Your task to perform on an android device: Open the phone app and click the voicemail tab. Image 0: 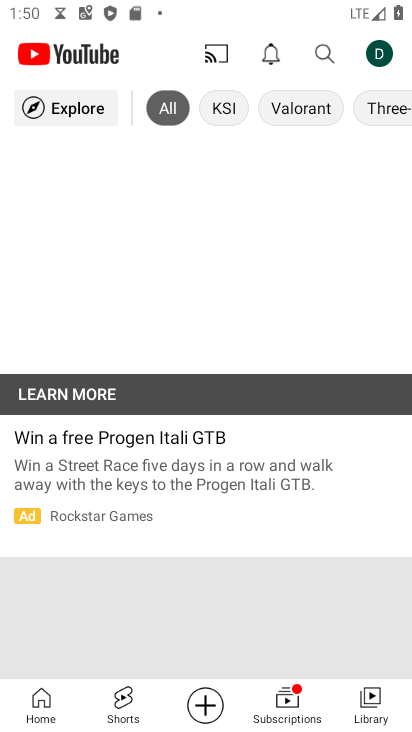
Step 0: click (197, 137)
Your task to perform on an android device: Open the phone app and click the voicemail tab. Image 1: 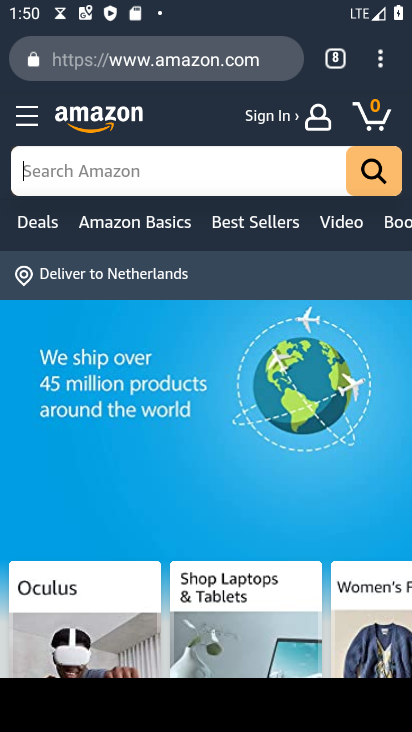
Step 1: press home button
Your task to perform on an android device: Open the phone app and click the voicemail tab. Image 2: 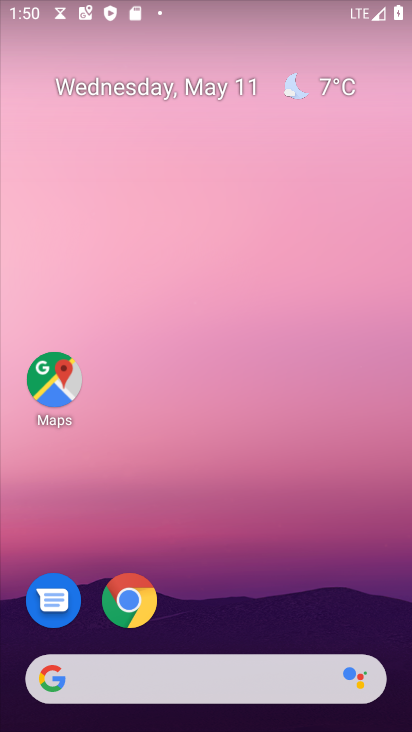
Step 2: drag from (232, 583) to (206, 75)
Your task to perform on an android device: Open the phone app and click the voicemail tab. Image 3: 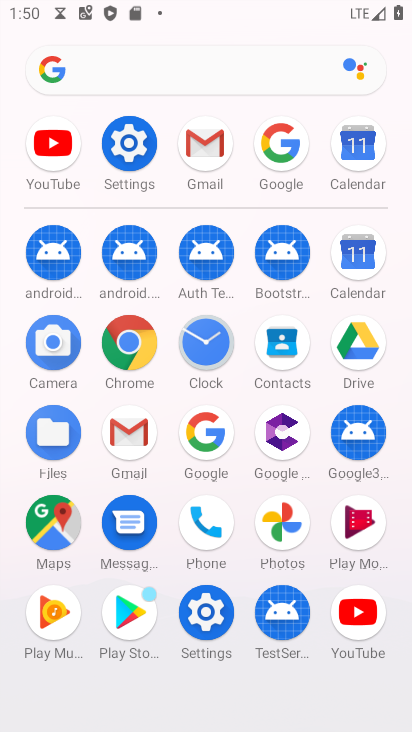
Step 3: click (205, 510)
Your task to perform on an android device: Open the phone app and click the voicemail tab. Image 4: 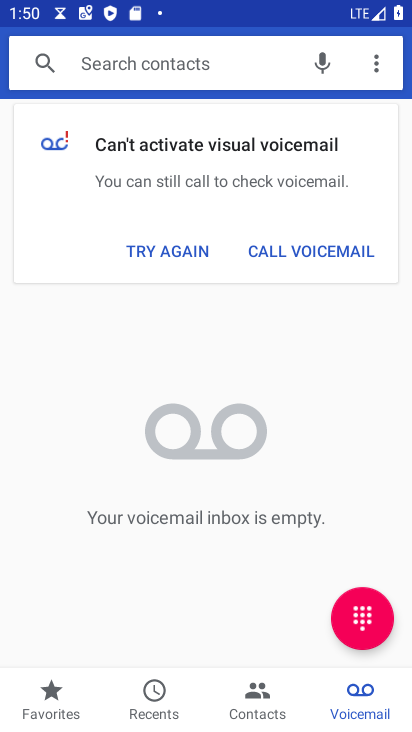
Step 4: click (370, 704)
Your task to perform on an android device: Open the phone app and click the voicemail tab. Image 5: 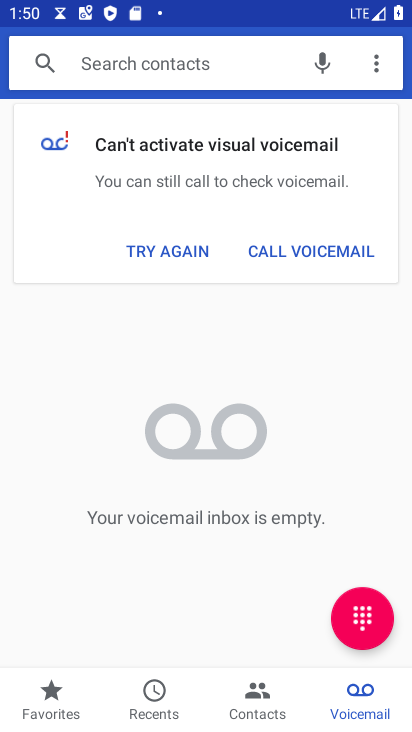
Step 5: task complete